Your task to perform on an android device: What is the news today? Image 0: 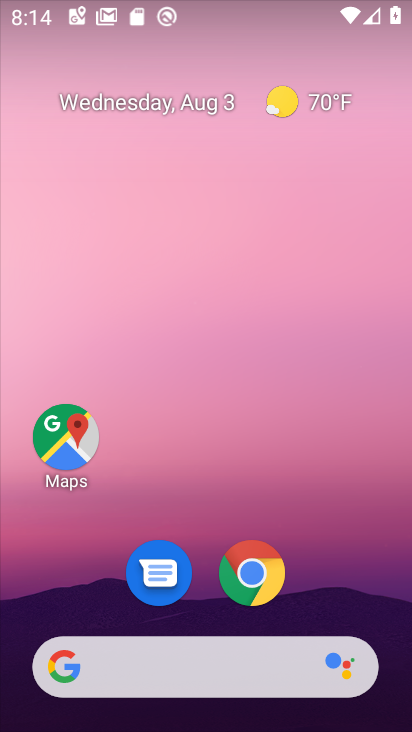
Step 0: click (160, 661)
Your task to perform on an android device: What is the news today? Image 1: 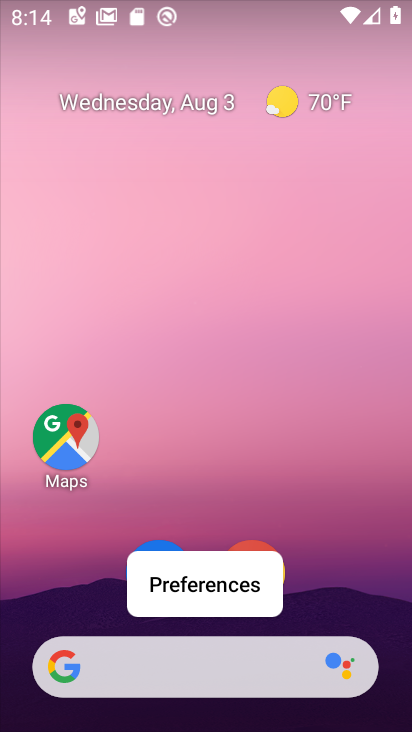
Step 1: click (137, 674)
Your task to perform on an android device: What is the news today? Image 2: 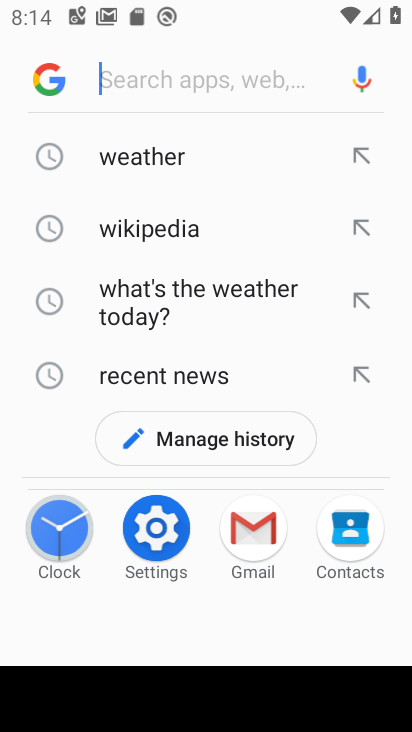
Step 2: type "news"
Your task to perform on an android device: What is the news today? Image 3: 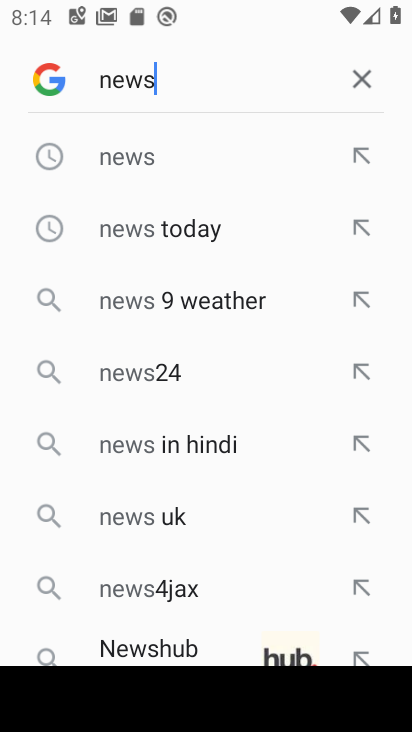
Step 3: click (209, 244)
Your task to perform on an android device: What is the news today? Image 4: 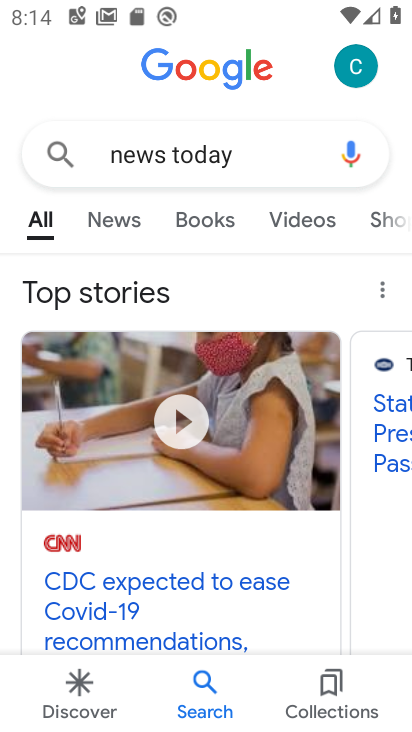
Step 4: click (105, 219)
Your task to perform on an android device: What is the news today? Image 5: 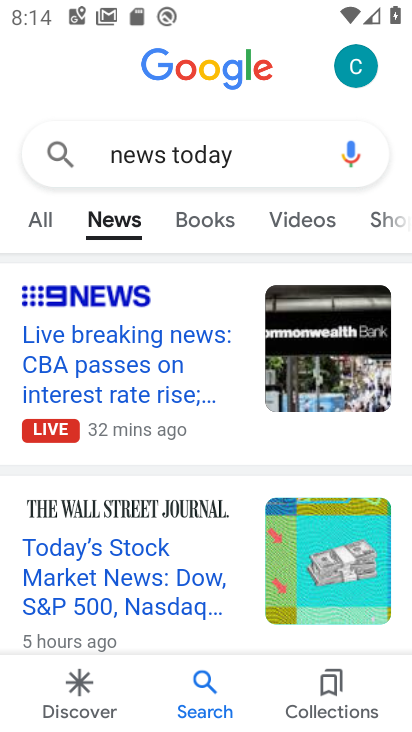
Step 5: drag from (161, 570) to (153, 442)
Your task to perform on an android device: What is the news today? Image 6: 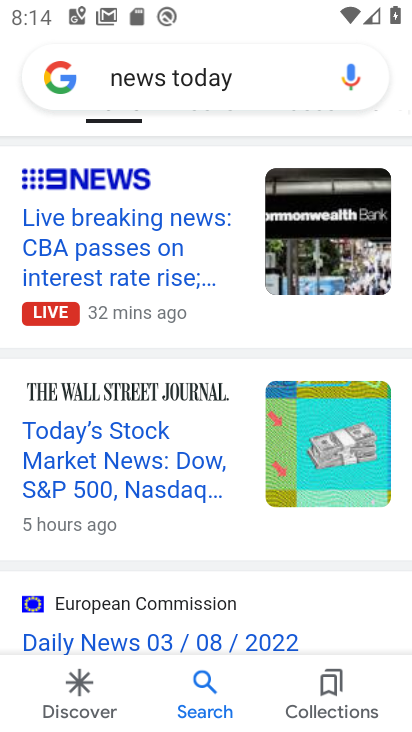
Step 6: click (153, 442)
Your task to perform on an android device: What is the news today? Image 7: 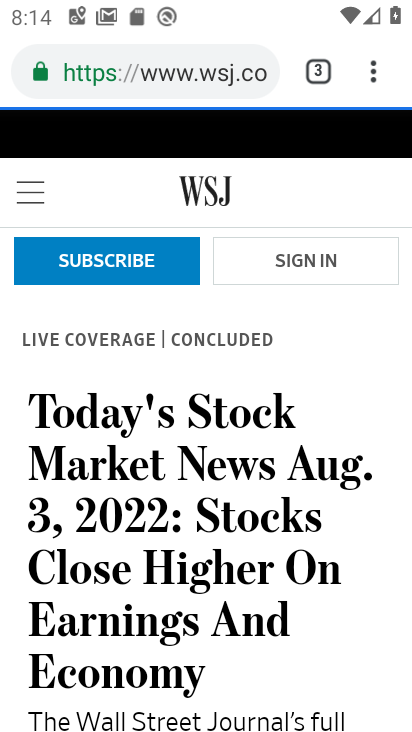
Step 7: task complete